Your task to perform on an android device: Show me popular games on the Play Store Image 0: 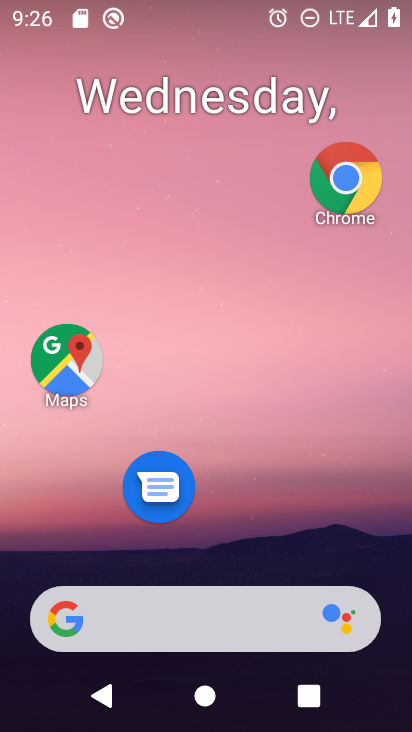
Step 0: drag from (224, 630) to (246, 8)
Your task to perform on an android device: Show me popular games on the Play Store Image 1: 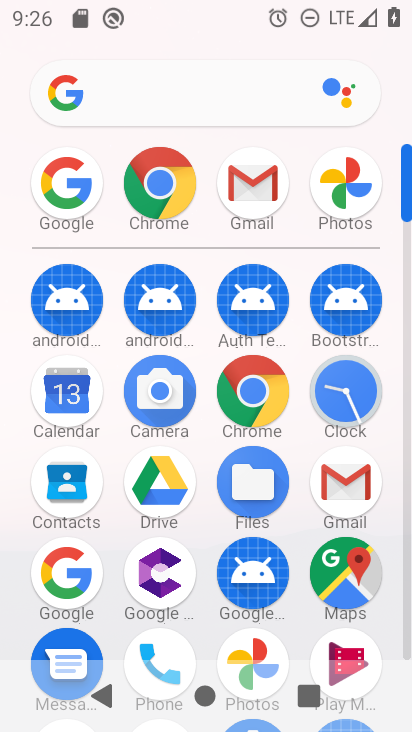
Step 1: drag from (189, 549) to (204, 135)
Your task to perform on an android device: Show me popular games on the Play Store Image 2: 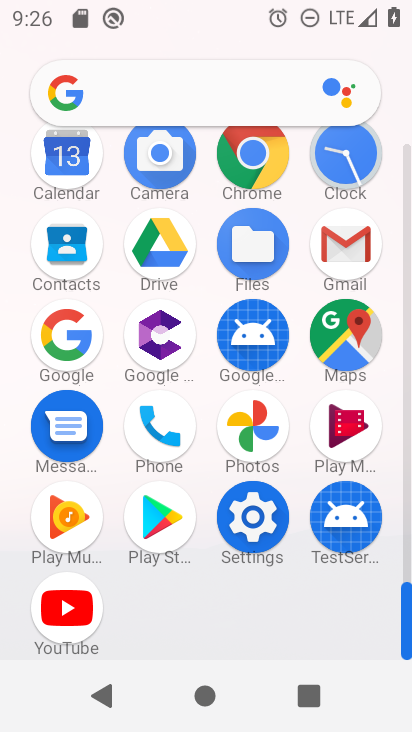
Step 2: click (171, 526)
Your task to perform on an android device: Show me popular games on the Play Store Image 3: 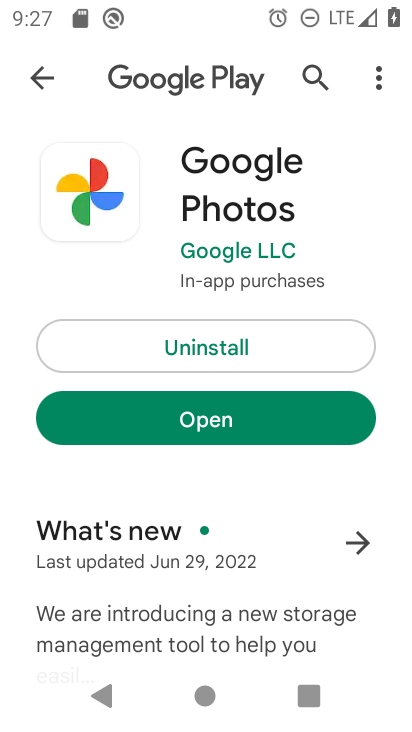
Step 3: click (50, 83)
Your task to perform on an android device: Show me popular games on the Play Store Image 4: 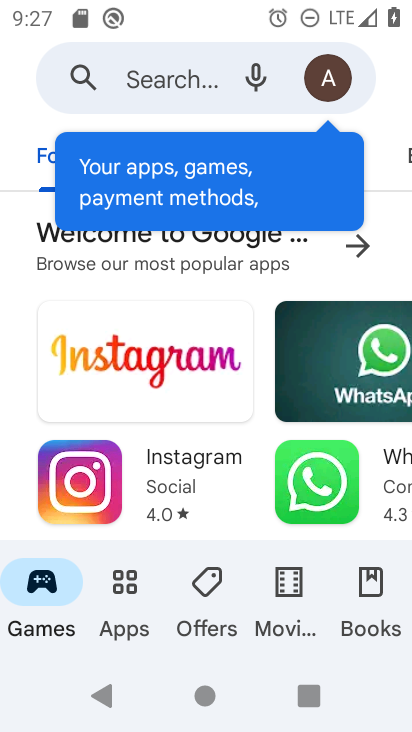
Step 4: task complete